Your task to perform on an android device: check out phone information Image 0: 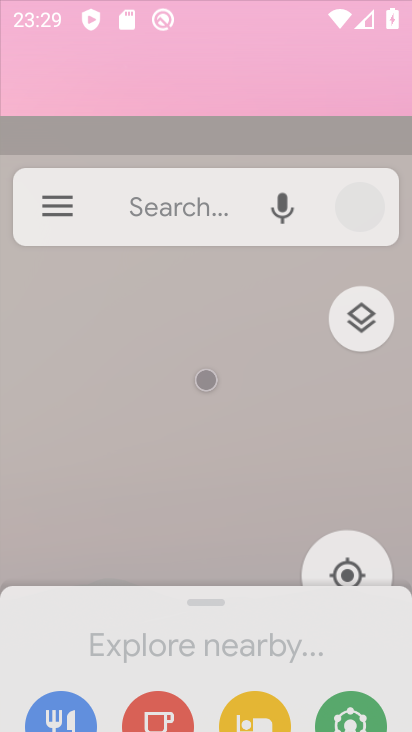
Step 0: click (233, 34)
Your task to perform on an android device: check out phone information Image 1: 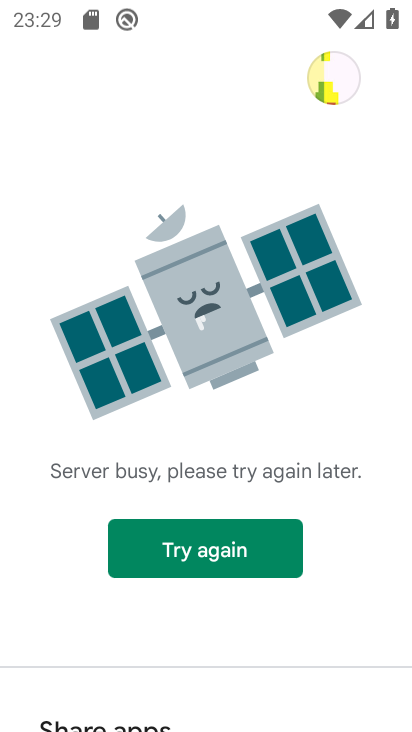
Step 1: press home button
Your task to perform on an android device: check out phone information Image 2: 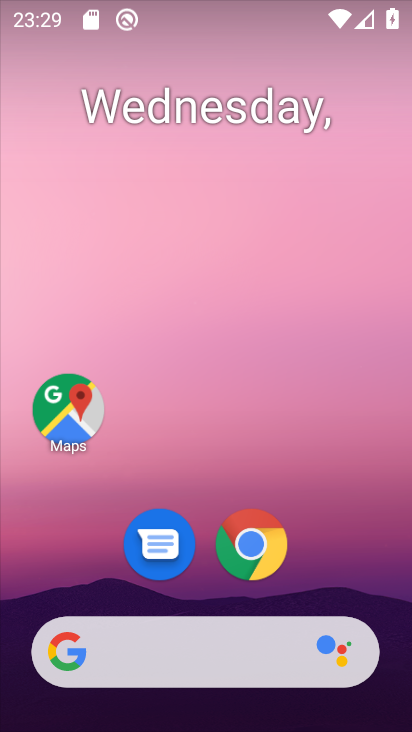
Step 2: drag from (354, 561) to (274, 90)
Your task to perform on an android device: check out phone information Image 3: 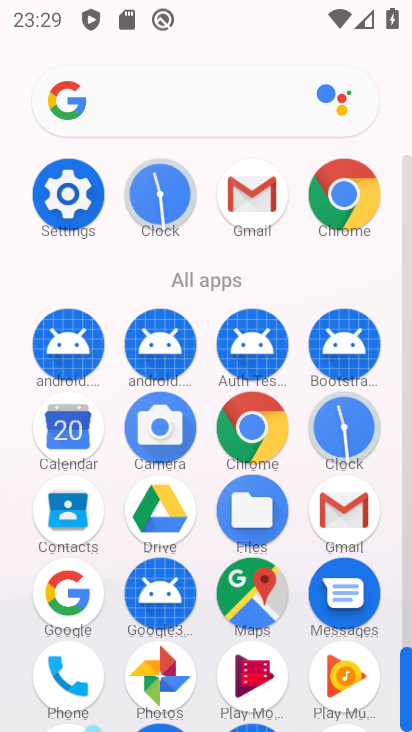
Step 3: click (404, 682)
Your task to perform on an android device: check out phone information Image 4: 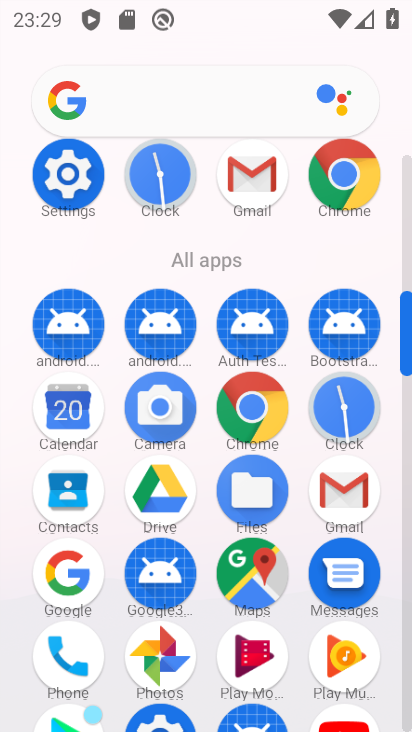
Step 4: click (404, 719)
Your task to perform on an android device: check out phone information Image 5: 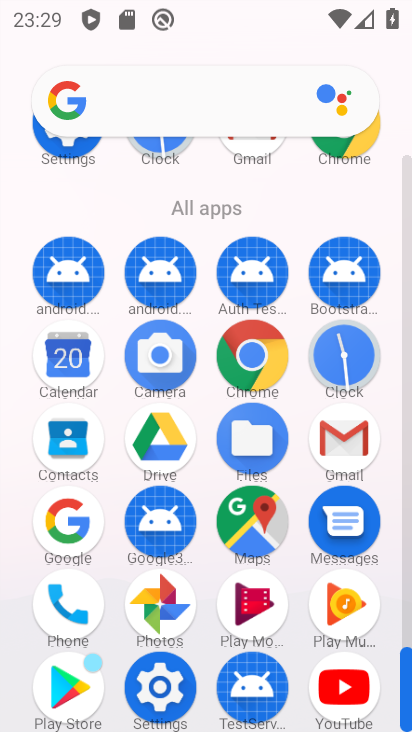
Step 5: click (137, 697)
Your task to perform on an android device: check out phone information Image 6: 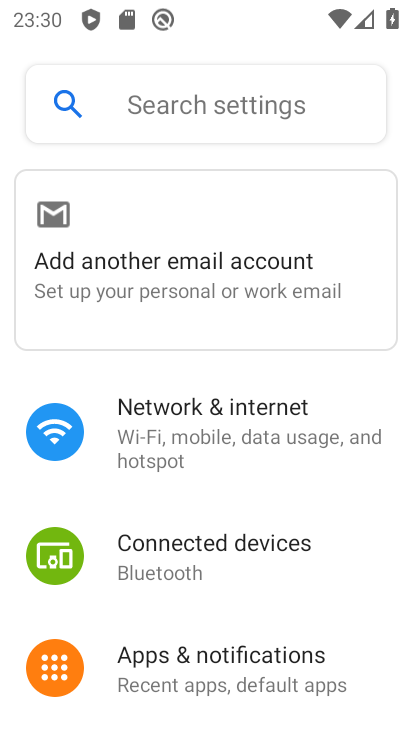
Step 6: press home button
Your task to perform on an android device: check out phone information Image 7: 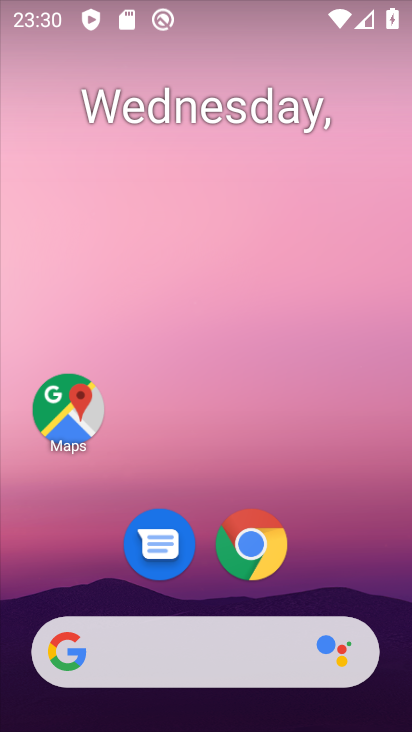
Step 7: drag from (330, 523) to (236, 111)
Your task to perform on an android device: check out phone information Image 8: 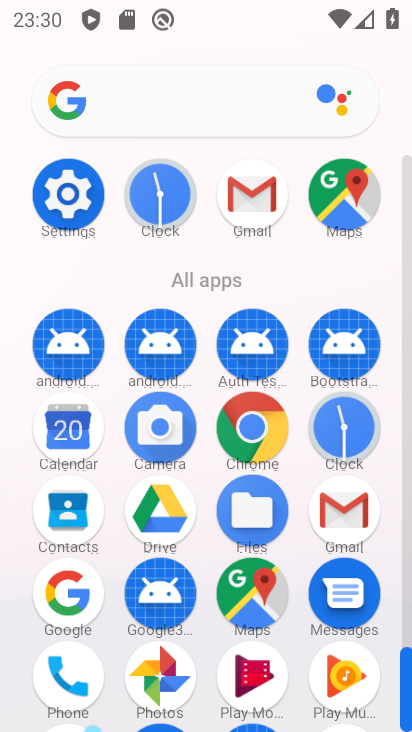
Step 8: click (143, 675)
Your task to perform on an android device: check out phone information Image 9: 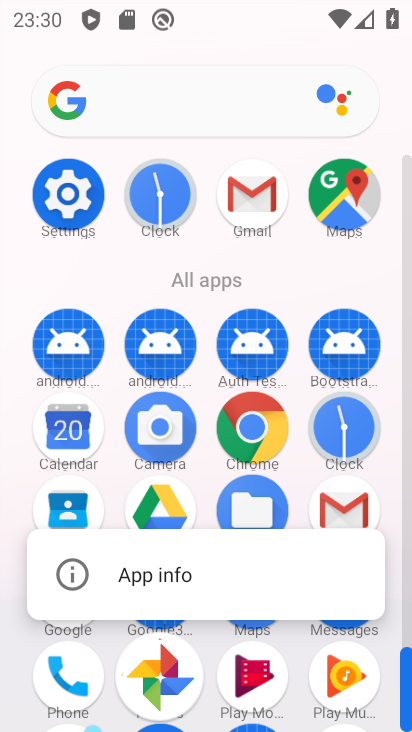
Step 9: click (182, 578)
Your task to perform on an android device: check out phone information Image 10: 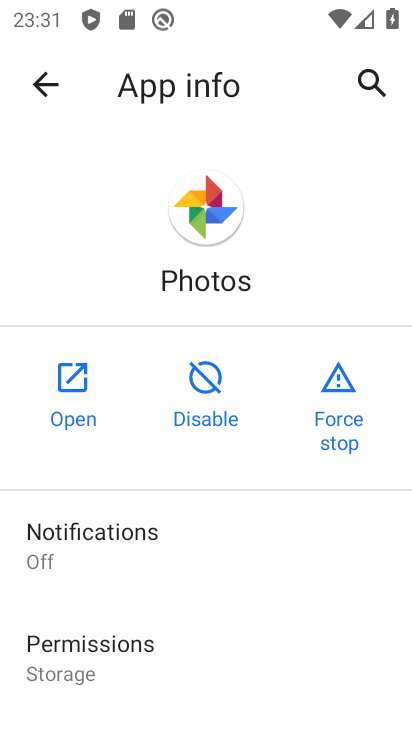
Step 10: task complete